Your task to perform on an android device: Open Youtube and go to the subscriptions tab Image 0: 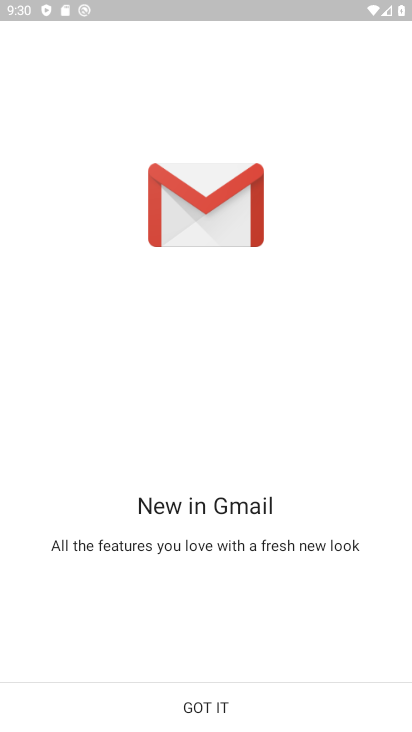
Step 0: press home button
Your task to perform on an android device: Open Youtube and go to the subscriptions tab Image 1: 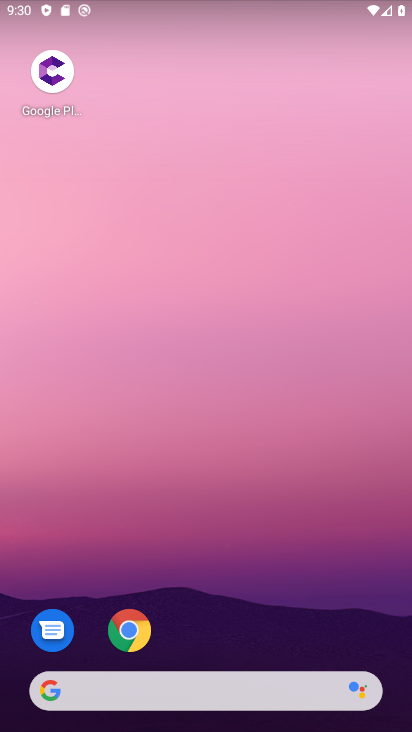
Step 1: drag from (17, 601) to (287, 72)
Your task to perform on an android device: Open Youtube and go to the subscriptions tab Image 2: 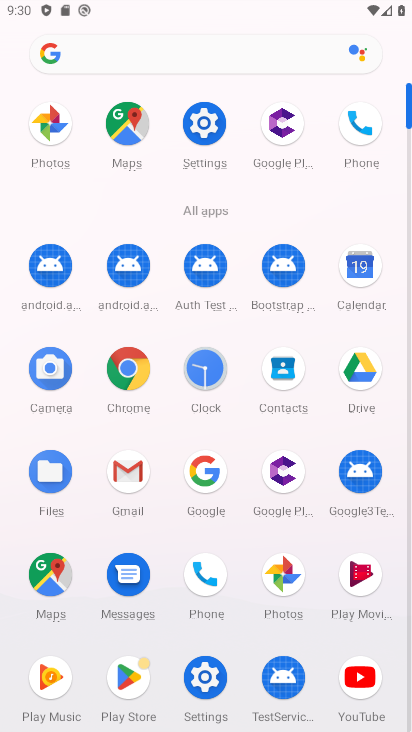
Step 2: click (360, 681)
Your task to perform on an android device: Open Youtube and go to the subscriptions tab Image 3: 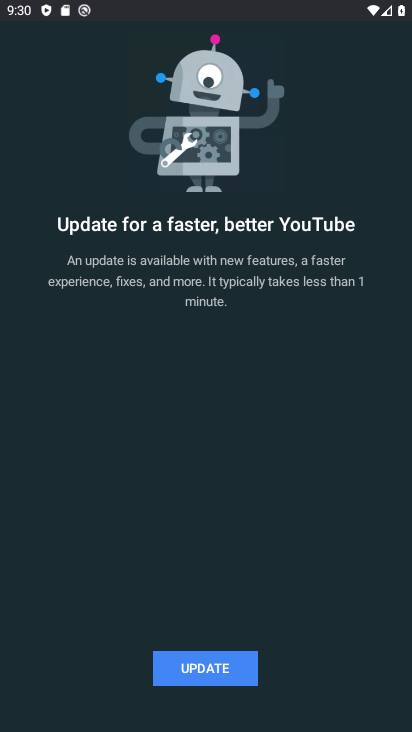
Step 3: task complete